Your task to perform on an android device: open the mobile data screen to see how much data has been used Image 0: 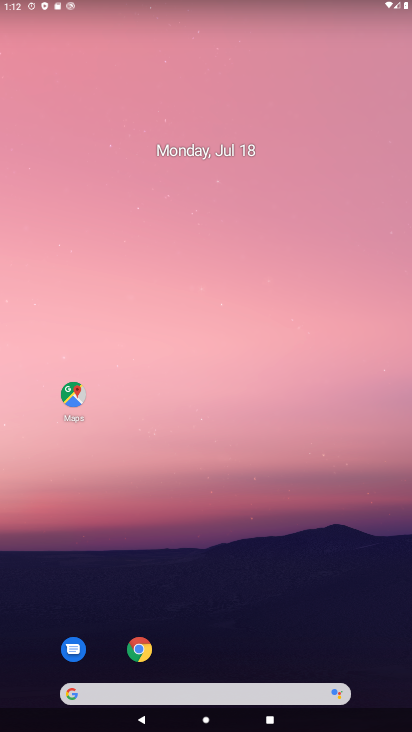
Step 0: drag from (212, 682) to (138, 7)
Your task to perform on an android device: open the mobile data screen to see how much data has been used Image 1: 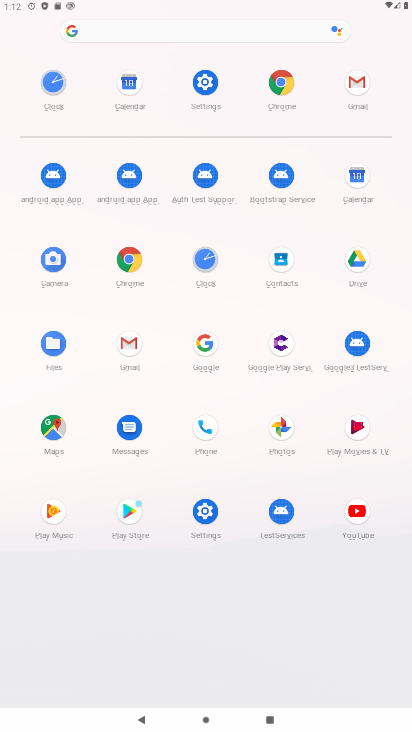
Step 1: click (191, 91)
Your task to perform on an android device: open the mobile data screen to see how much data has been used Image 2: 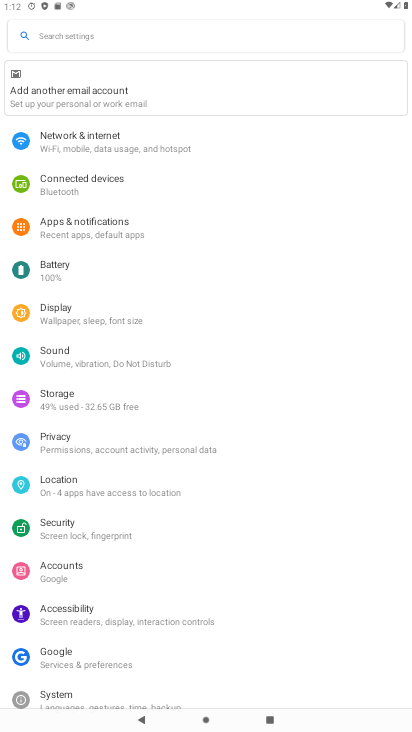
Step 2: click (98, 141)
Your task to perform on an android device: open the mobile data screen to see how much data has been used Image 3: 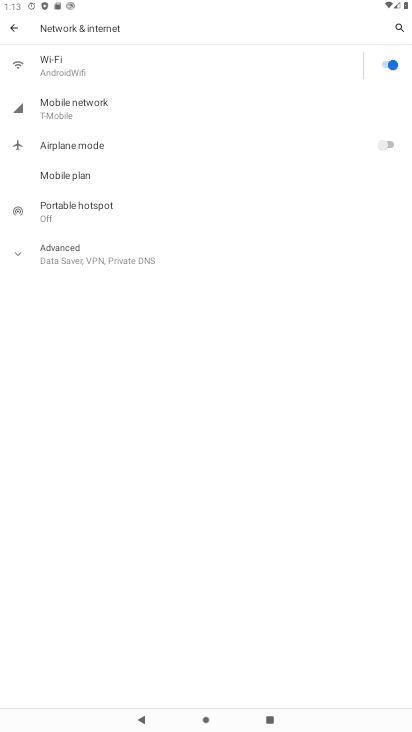
Step 3: click (78, 106)
Your task to perform on an android device: open the mobile data screen to see how much data has been used Image 4: 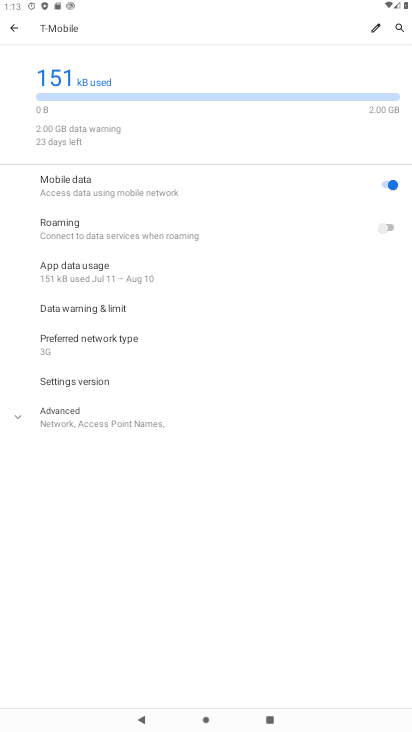
Step 4: task complete